Your task to perform on an android device: turn off notifications settings in the gmail app Image 0: 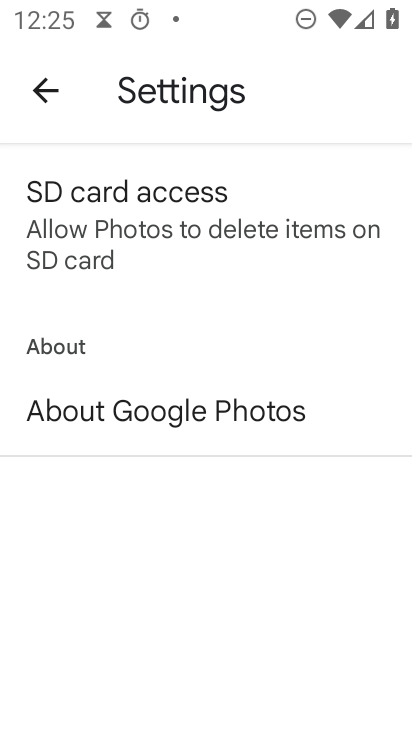
Step 0: press home button
Your task to perform on an android device: turn off notifications settings in the gmail app Image 1: 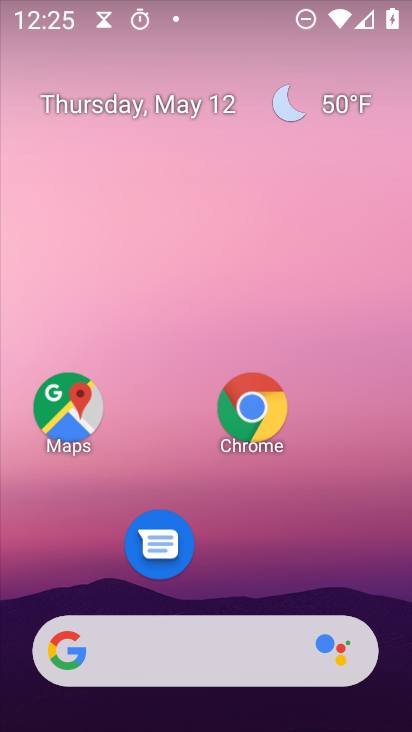
Step 1: drag from (260, 555) to (268, 83)
Your task to perform on an android device: turn off notifications settings in the gmail app Image 2: 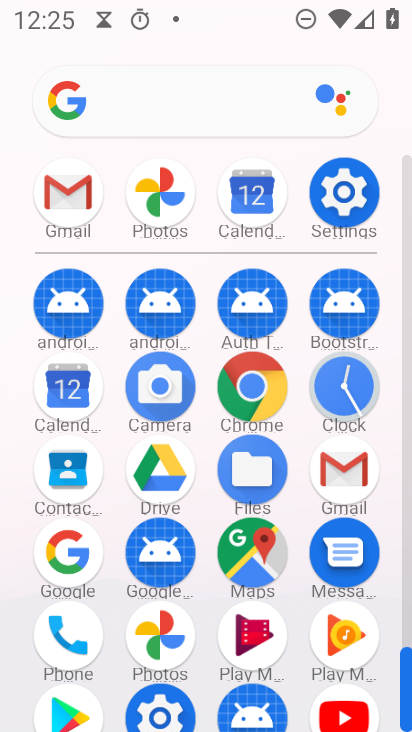
Step 2: click (66, 198)
Your task to perform on an android device: turn off notifications settings in the gmail app Image 3: 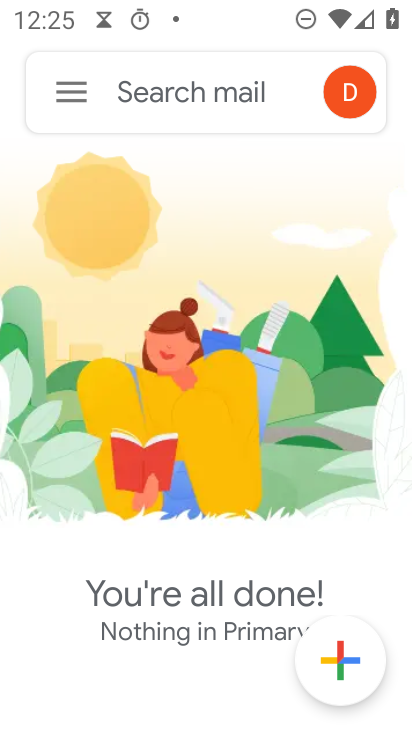
Step 3: click (70, 102)
Your task to perform on an android device: turn off notifications settings in the gmail app Image 4: 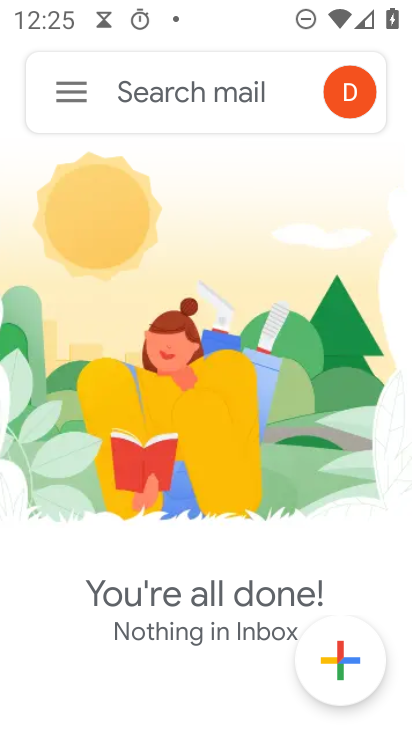
Step 4: click (55, 106)
Your task to perform on an android device: turn off notifications settings in the gmail app Image 5: 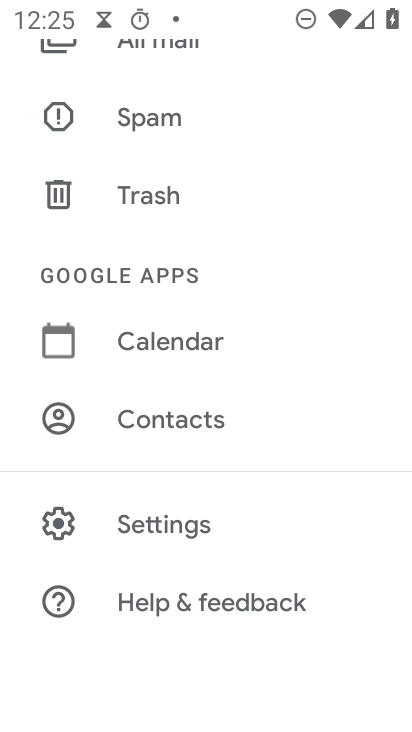
Step 5: click (162, 533)
Your task to perform on an android device: turn off notifications settings in the gmail app Image 6: 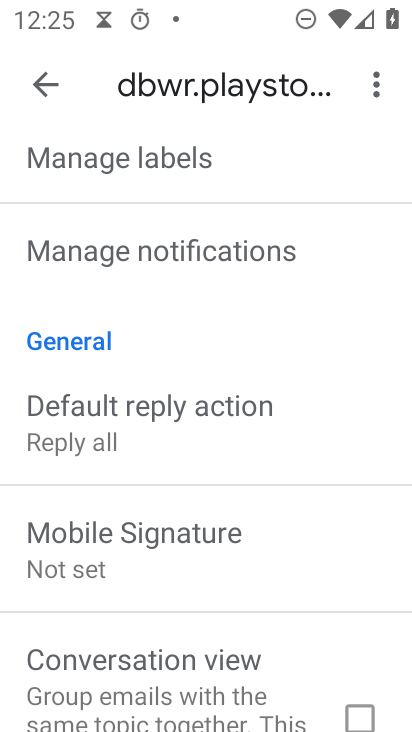
Step 6: drag from (151, 635) to (198, 330)
Your task to perform on an android device: turn off notifications settings in the gmail app Image 7: 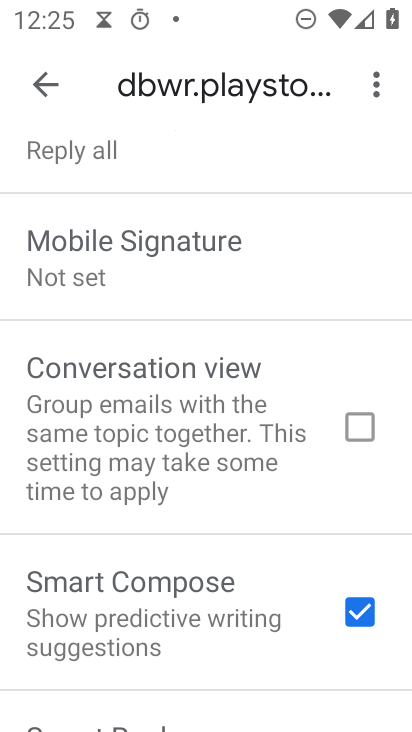
Step 7: drag from (195, 283) to (195, 596)
Your task to perform on an android device: turn off notifications settings in the gmail app Image 8: 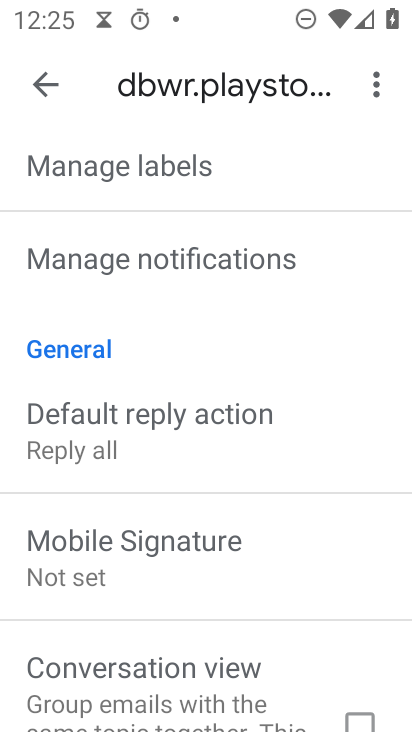
Step 8: click (239, 293)
Your task to perform on an android device: turn off notifications settings in the gmail app Image 9: 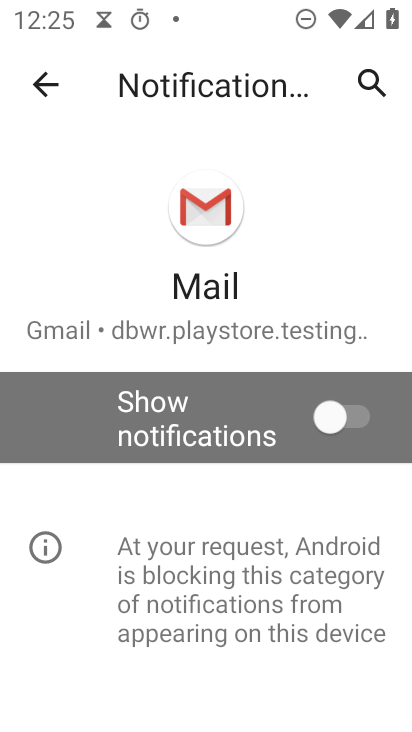
Step 9: task complete